Your task to perform on an android device: What's the weather going to be this weekend? Image 0: 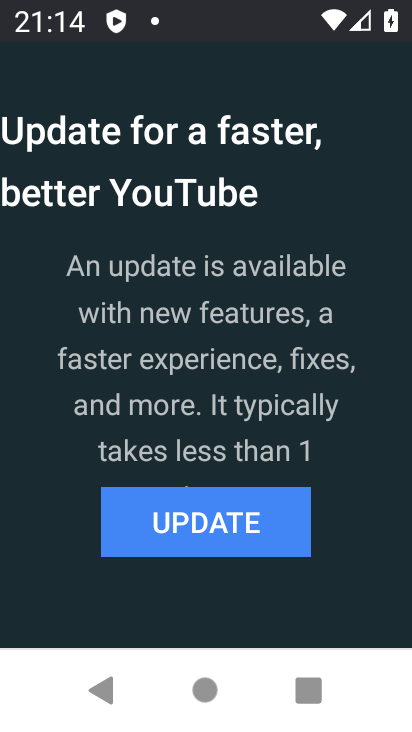
Step 0: press home button
Your task to perform on an android device: What's the weather going to be this weekend? Image 1: 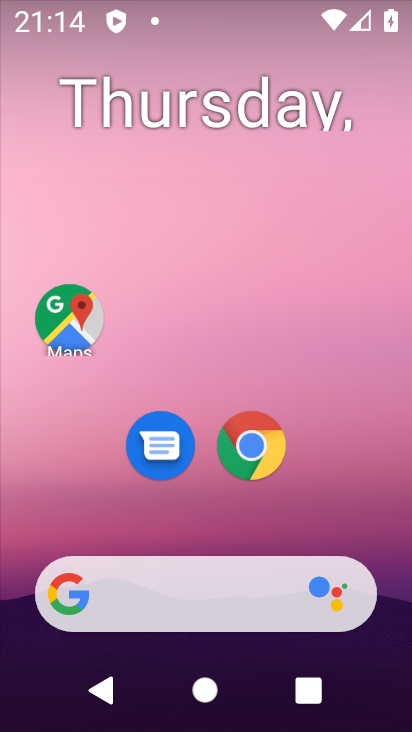
Step 1: click (163, 600)
Your task to perform on an android device: What's the weather going to be this weekend? Image 2: 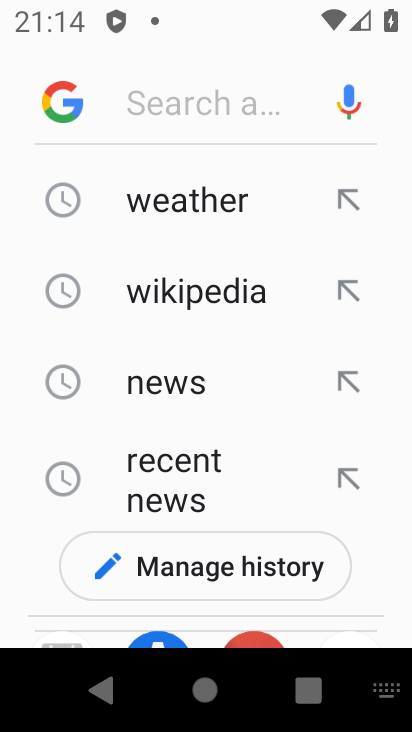
Step 2: click (189, 221)
Your task to perform on an android device: What's the weather going to be this weekend? Image 3: 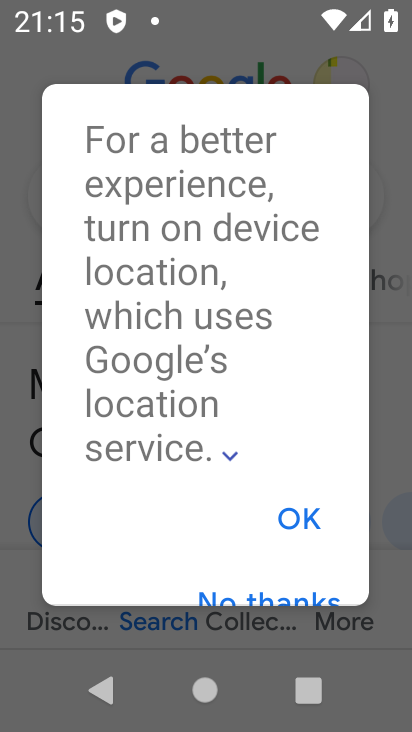
Step 3: click (283, 595)
Your task to perform on an android device: What's the weather going to be this weekend? Image 4: 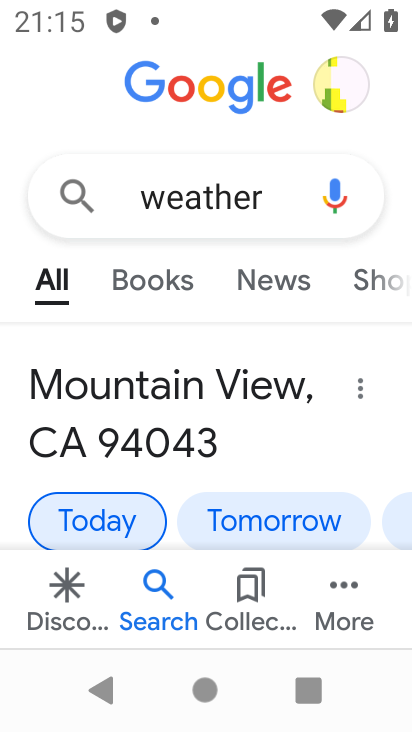
Step 4: click (398, 513)
Your task to perform on an android device: What's the weather going to be this weekend? Image 5: 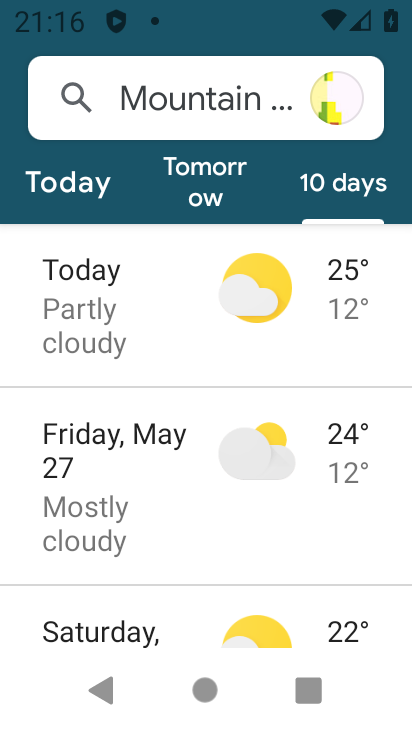
Step 5: task complete